Your task to perform on an android device: toggle notifications settings in the gmail app Image 0: 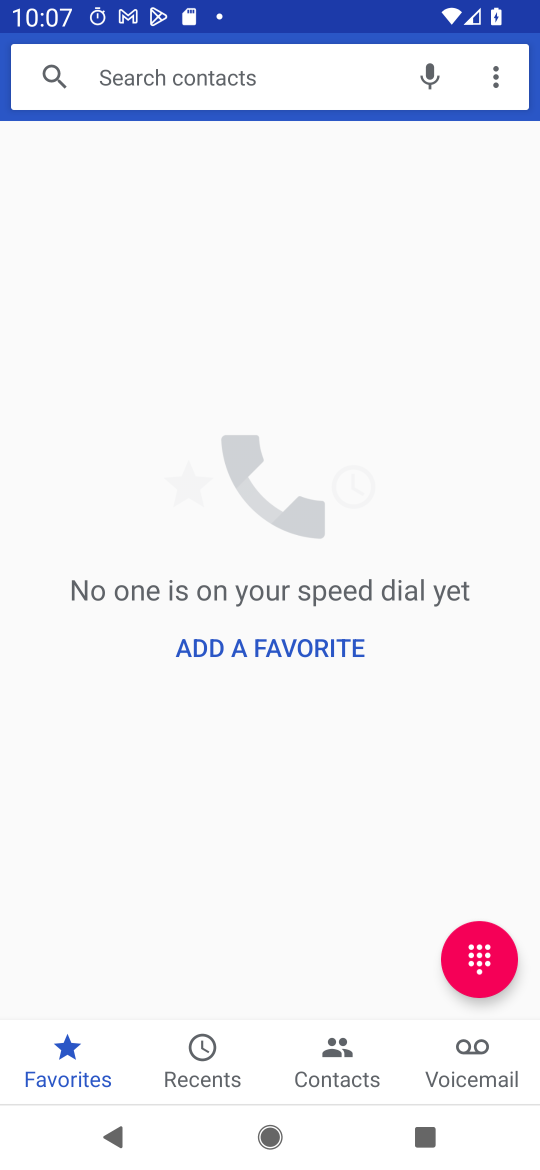
Step 0: press home button
Your task to perform on an android device: toggle notifications settings in the gmail app Image 1: 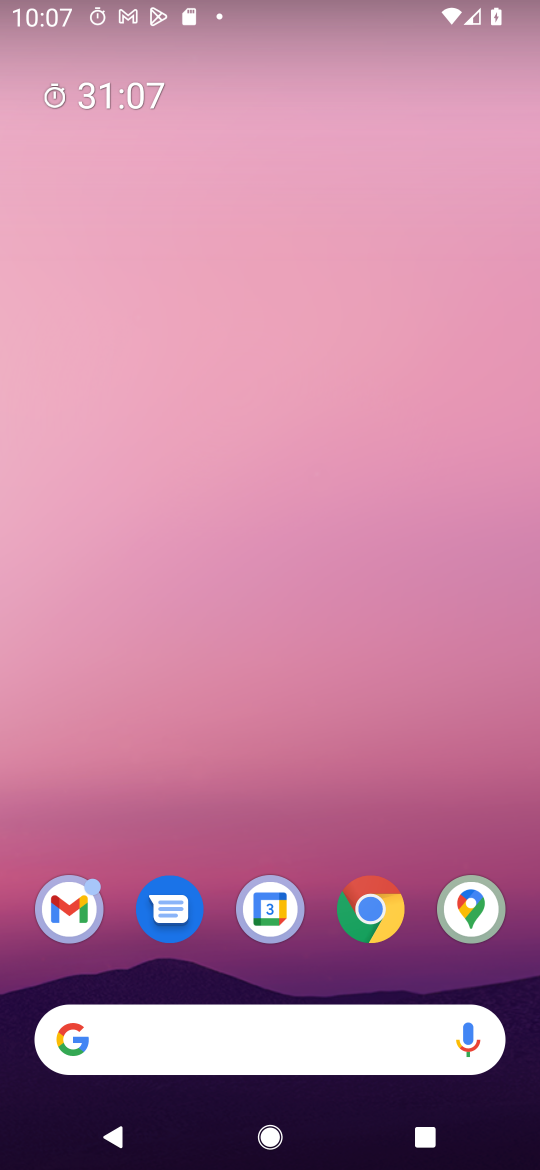
Step 1: drag from (384, 783) to (408, 196)
Your task to perform on an android device: toggle notifications settings in the gmail app Image 2: 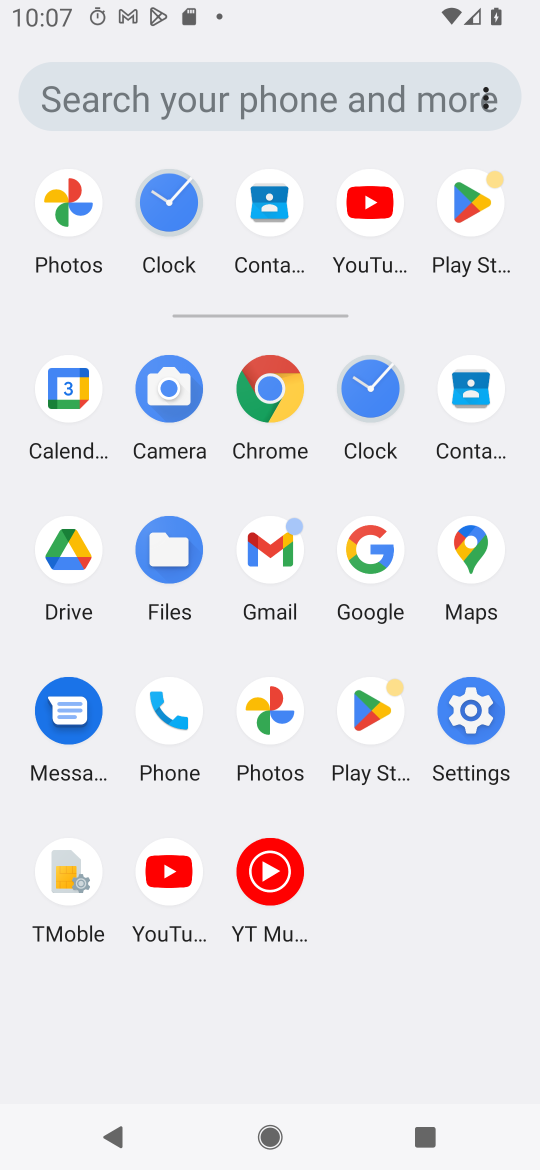
Step 2: click (506, 438)
Your task to perform on an android device: toggle notifications settings in the gmail app Image 3: 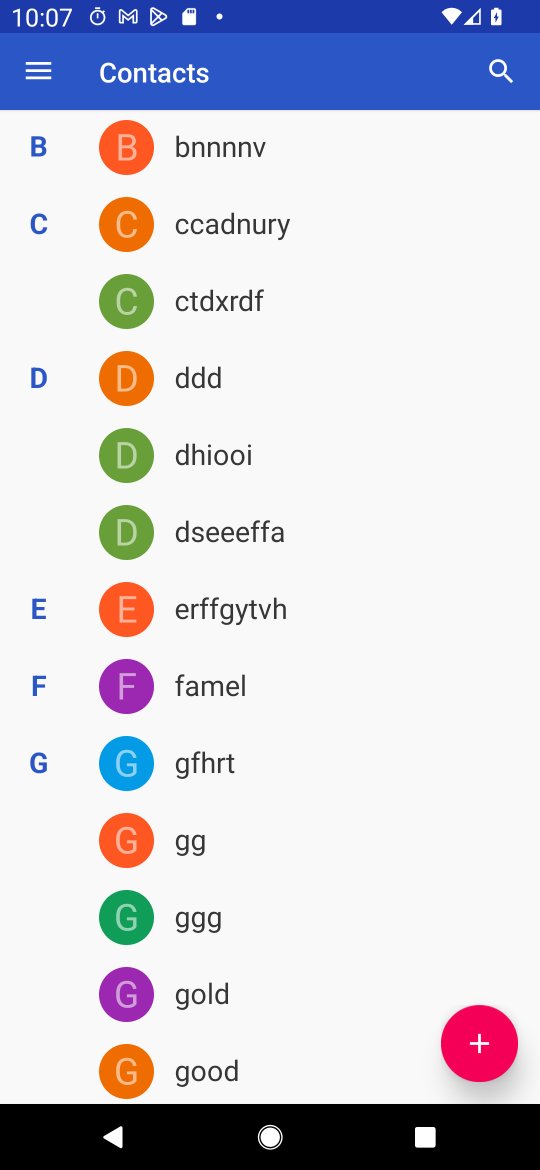
Step 3: press home button
Your task to perform on an android device: toggle notifications settings in the gmail app Image 4: 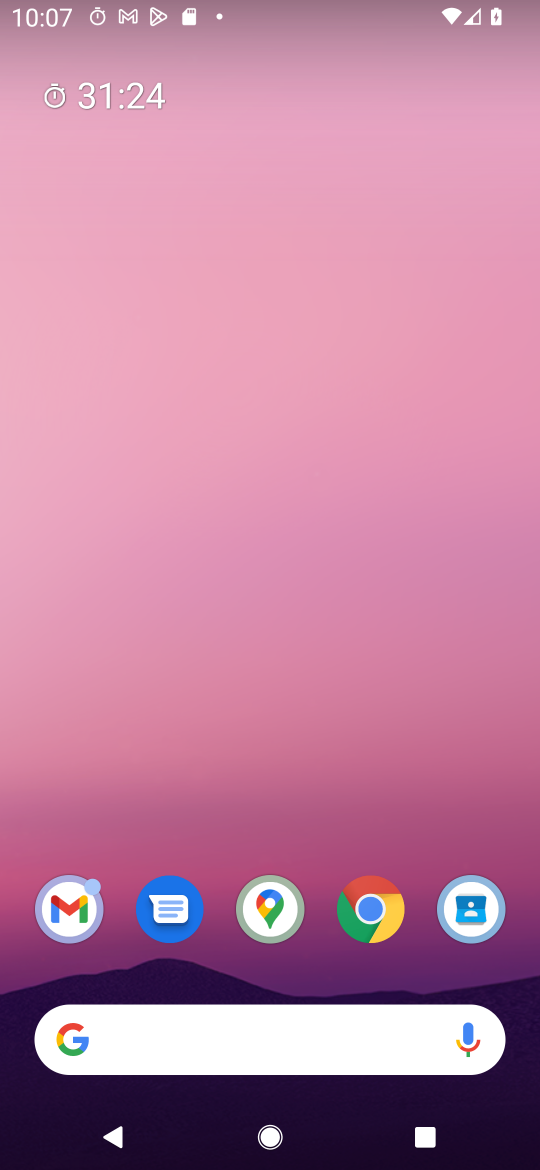
Step 4: drag from (420, 809) to (434, 323)
Your task to perform on an android device: toggle notifications settings in the gmail app Image 5: 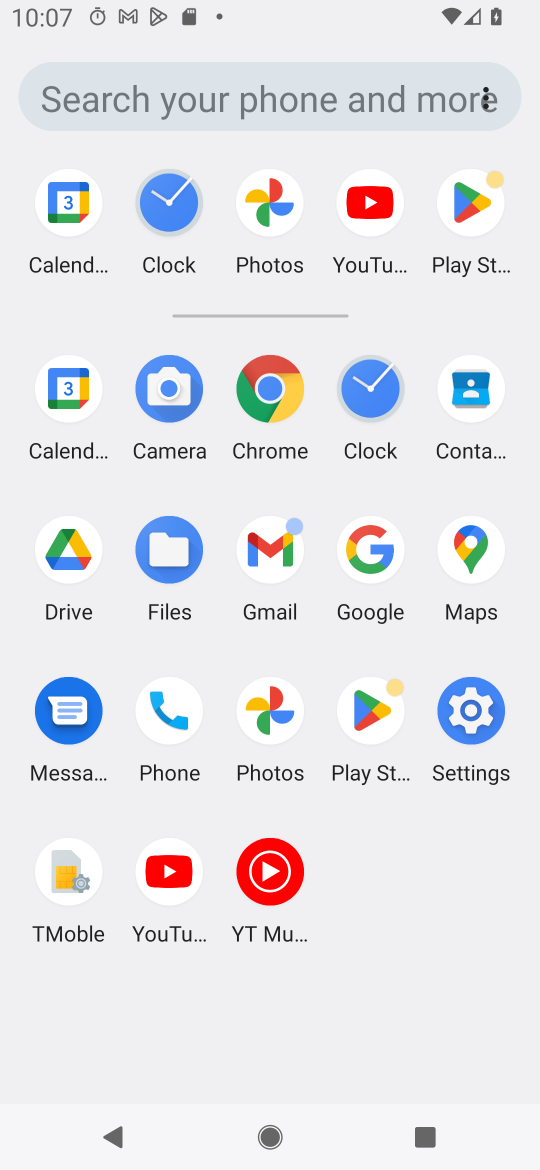
Step 5: click (273, 547)
Your task to perform on an android device: toggle notifications settings in the gmail app Image 6: 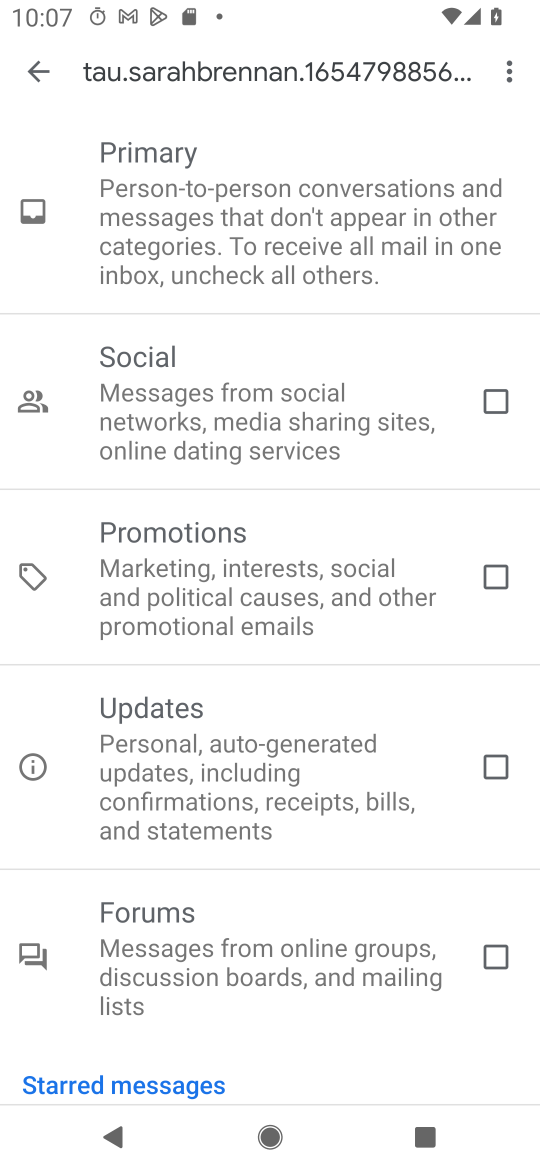
Step 6: press back button
Your task to perform on an android device: toggle notifications settings in the gmail app Image 7: 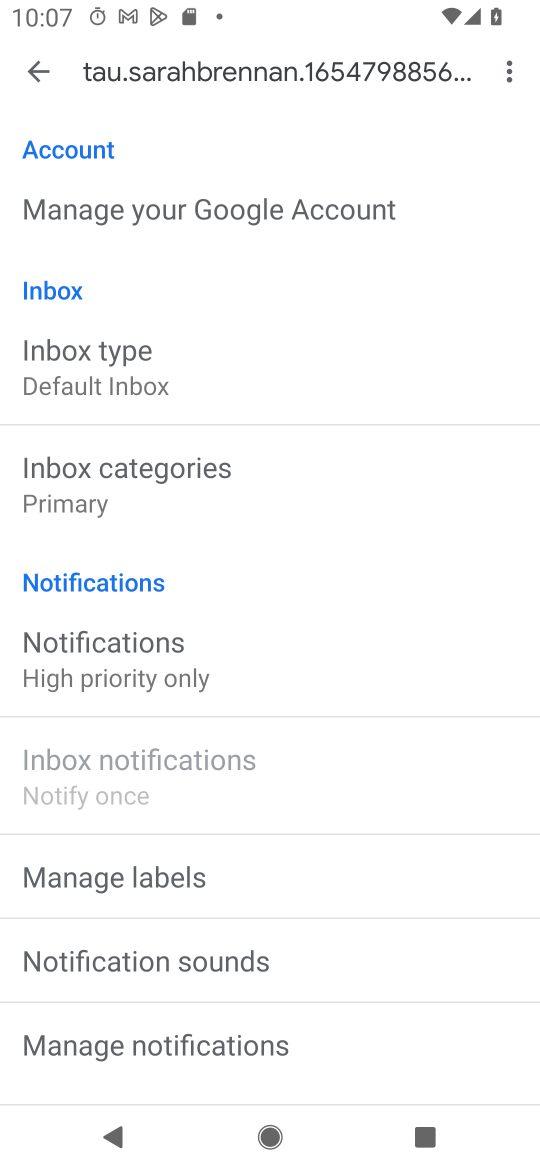
Step 7: drag from (387, 905) to (404, 773)
Your task to perform on an android device: toggle notifications settings in the gmail app Image 8: 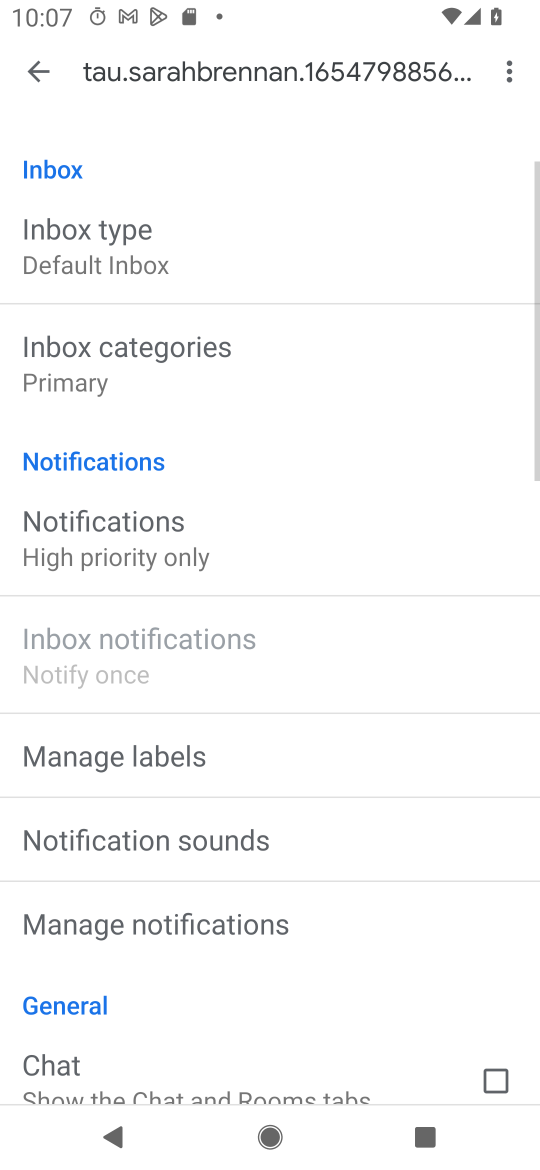
Step 8: drag from (420, 934) to (414, 764)
Your task to perform on an android device: toggle notifications settings in the gmail app Image 9: 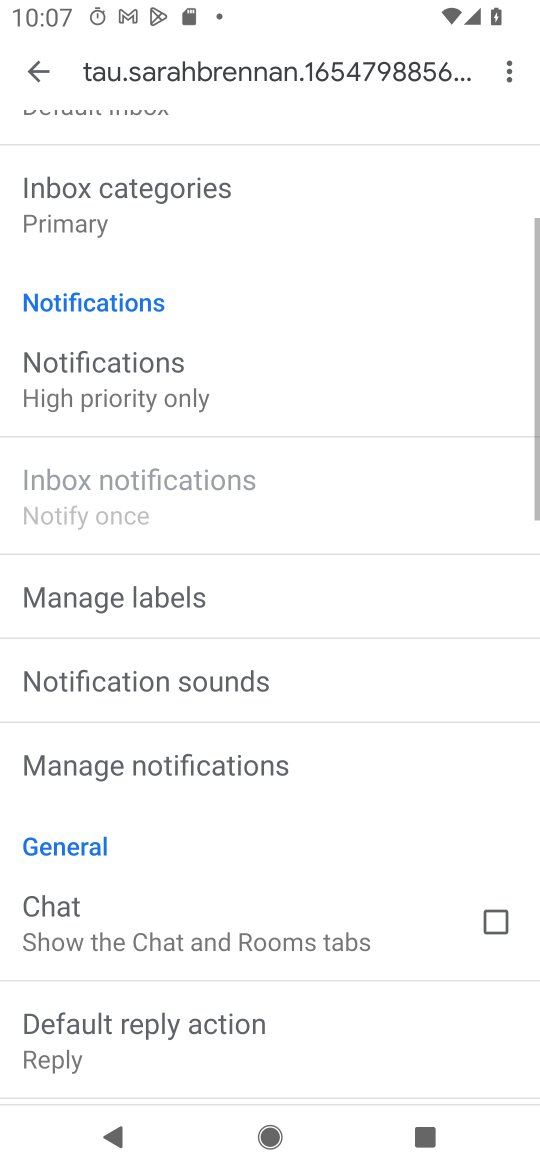
Step 9: drag from (370, 814) to (367, 729)
Your task to perform on an android device: toggle notifications settings in the gmail app Image 10: 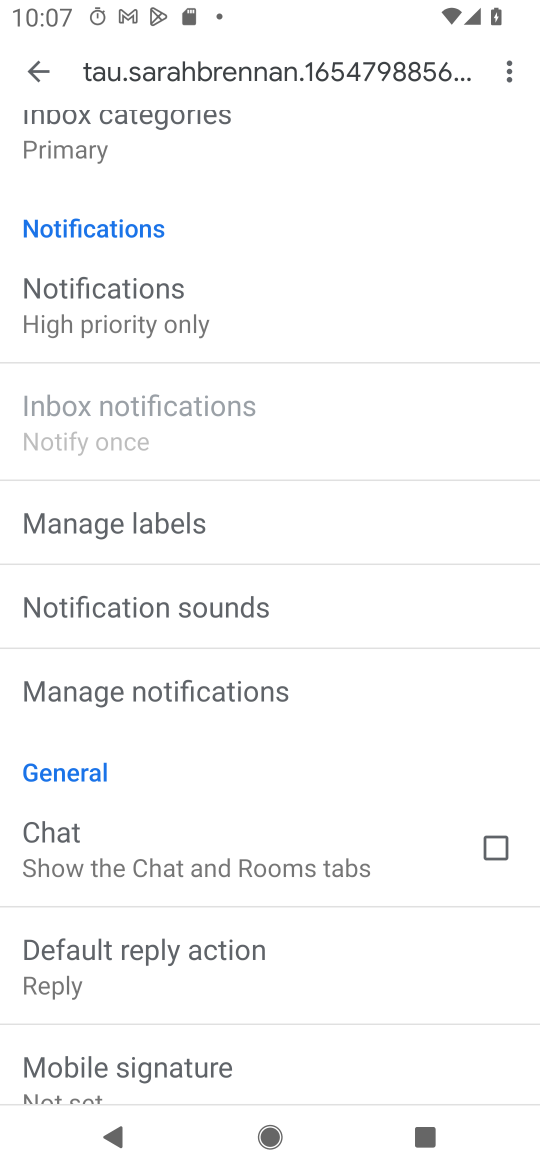
Step 10: click (315, 686)
Your task to perform on an android device: toggle notifications settings in the gmail app Image 11: 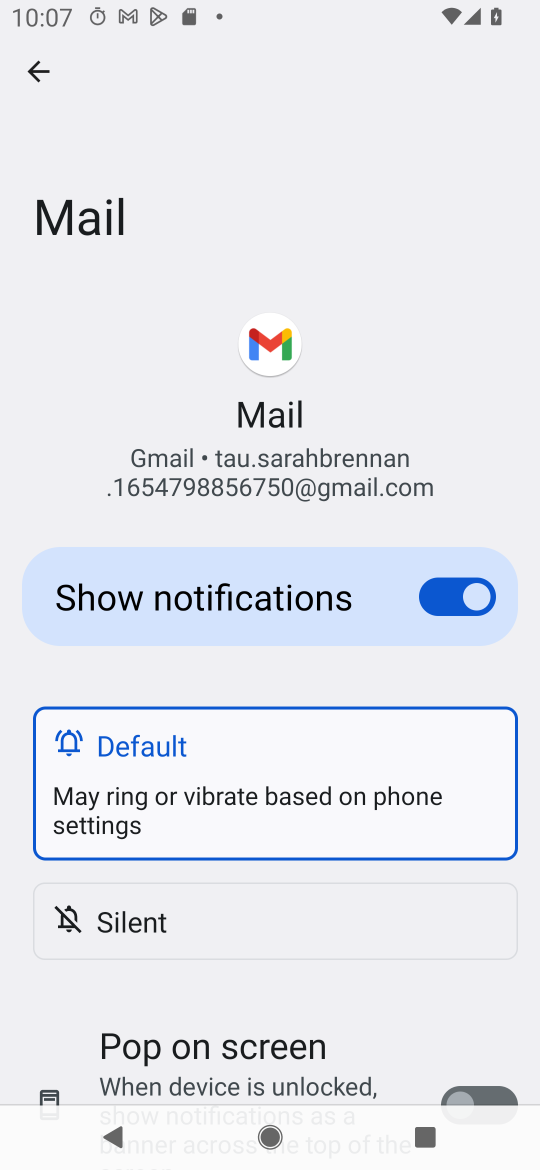
Step 11: click (460, 592)
Your task to perform on an android device: toggle notifications settings in the gmail app Image 12: 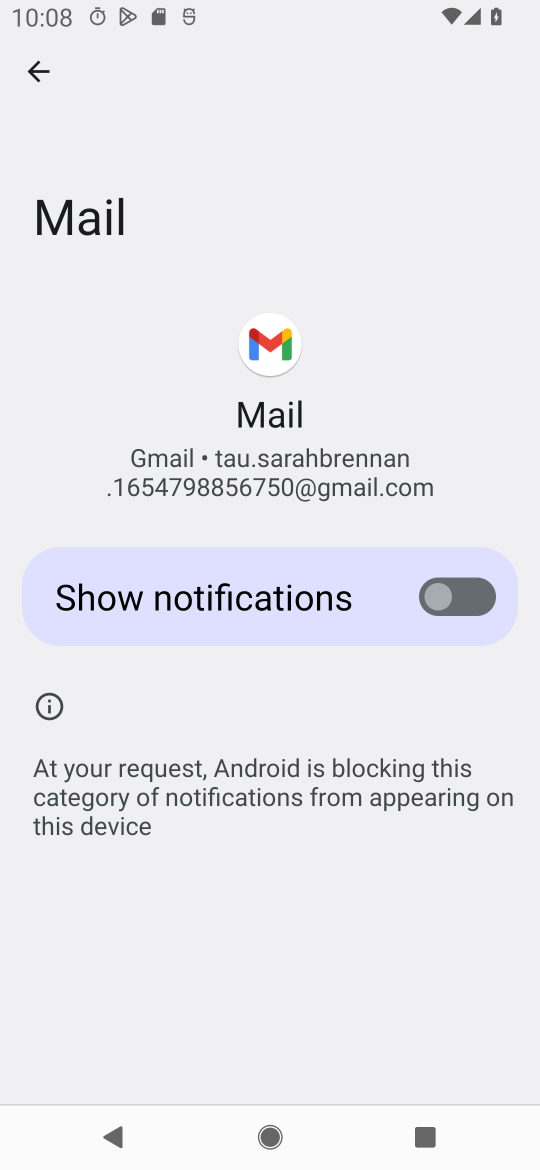
Step 12: task complete